Your task to perform on an android device: Open Yahoo.com Image 0: 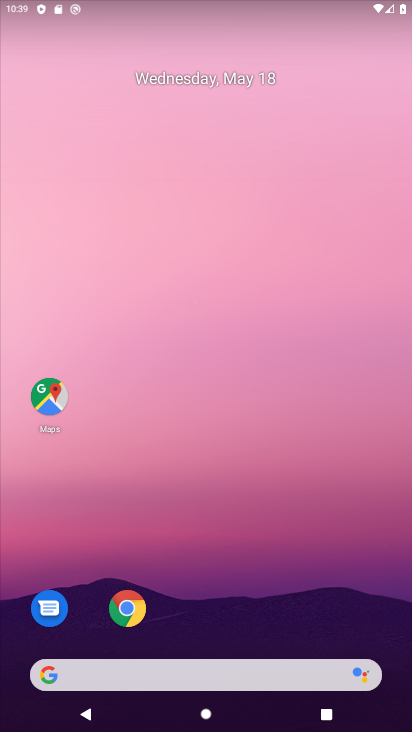
Step 0: press home button
Your task to perform on an android device: Open Yahoo.com Image 1: 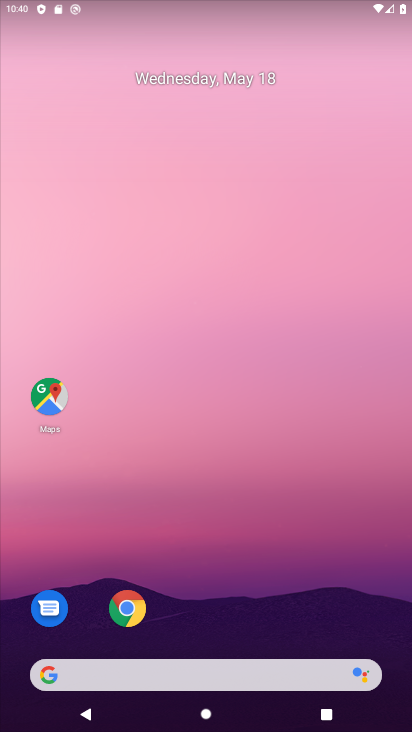
Step 1: click (123, 608)
Your task to perform on an android device: Open Yahoo.com Image 2: 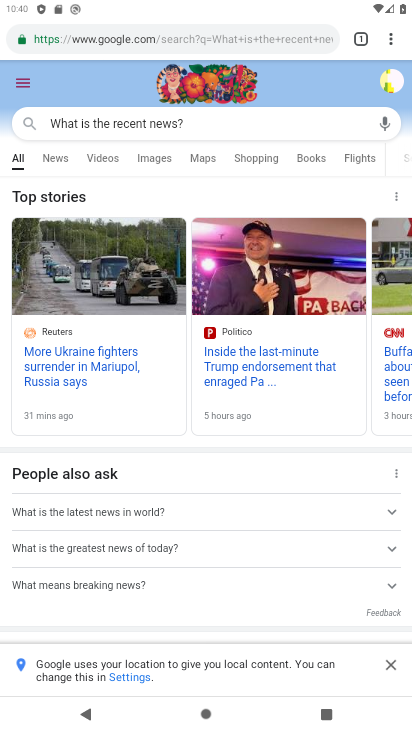
Step 2: click (224, 34)
Your task to perform on an android device: Open Yahoo.com Image 3: 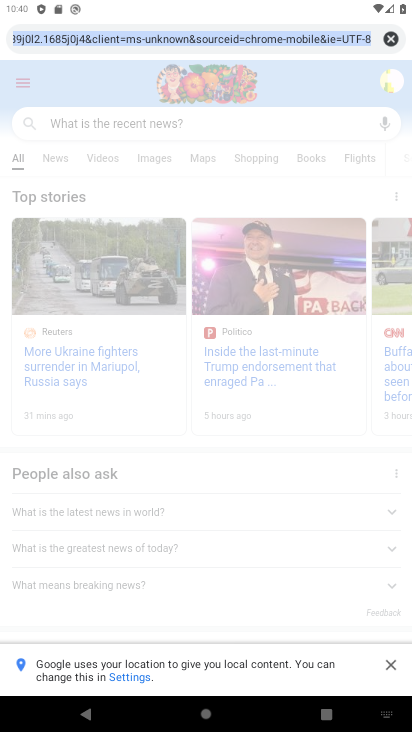
Step 3: click (391, 36)
Your task to perform on an android device: Open Yahoo.com Image 4: 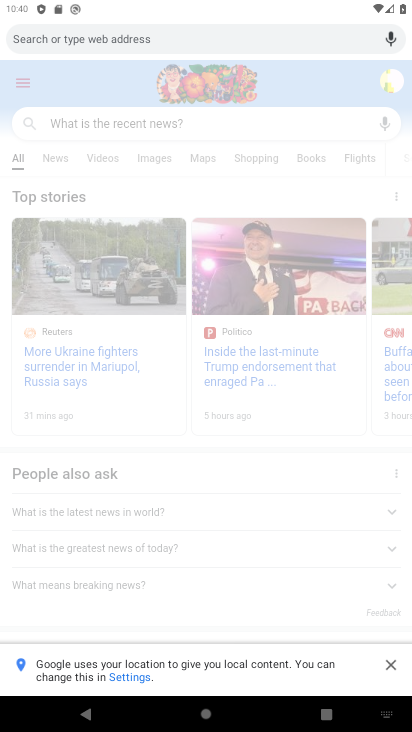
Step 4: type " Yahoo.com"
Your task to perform on an android device: Open Yahoo.com Image 5: 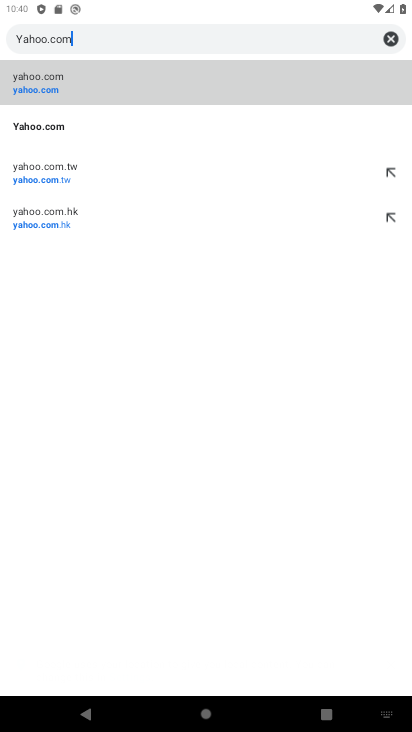
Step 5: click (119, 64)
Your task to perform on an android device: Open Yahoo.com Image 6: 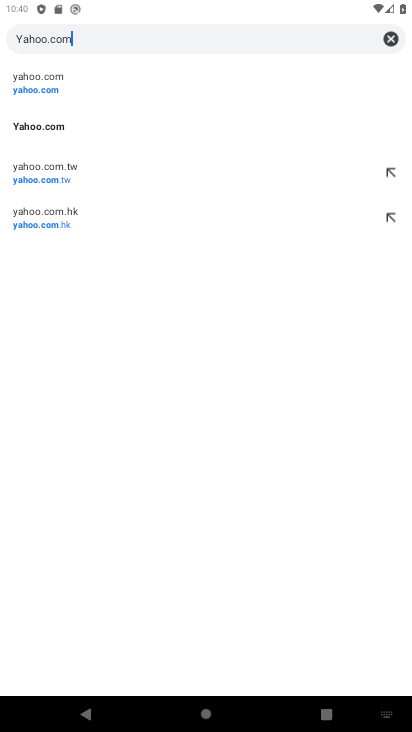
Step 6: click (201, 90)
Your task to perform on an android device: Open Yahoo.com Image 7: 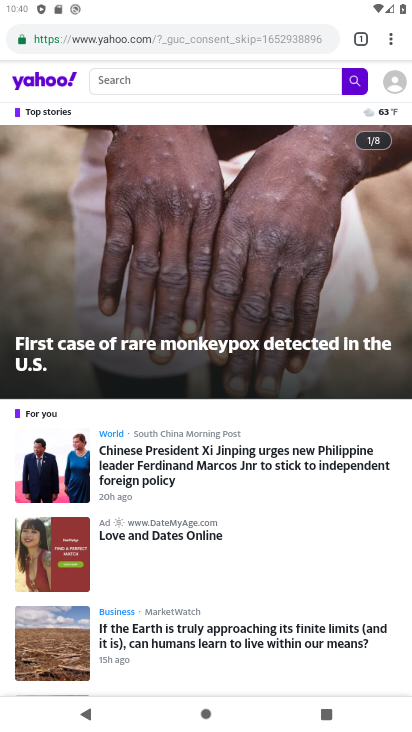
Step 7: task complete